Your task to perform on an android device: Go to network settings Image 0: 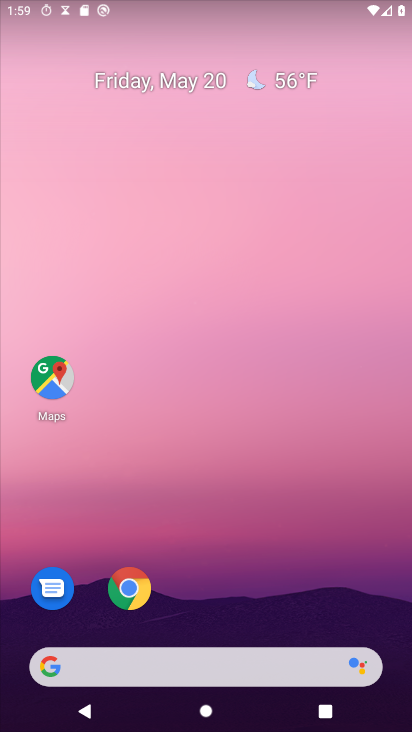
Step 0: drag from (13, 615) to (205, 175)
Your task to perform on an android device: Go to network settings Image 1: 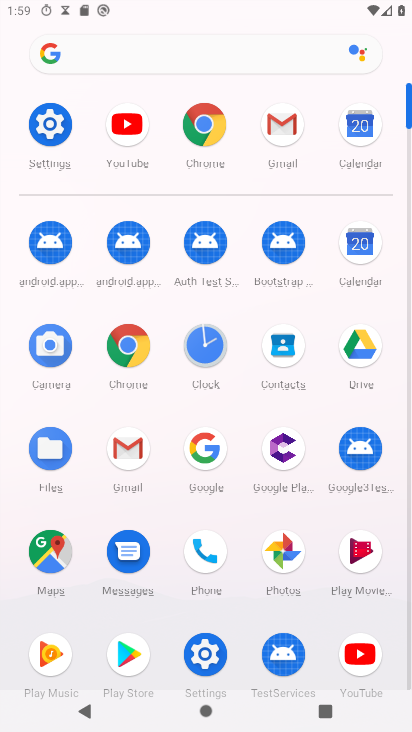
Step 1: click (59, 127)
Your task to perform on an android device: Go to network settings Image 2: 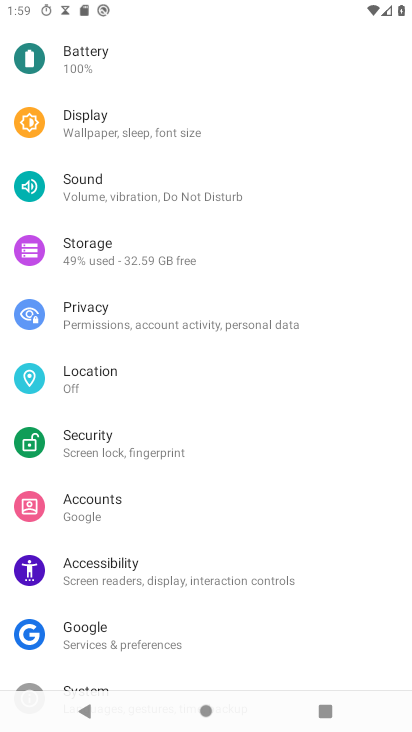
Step 2: drag from (164, 79) to (152, 402)
Your task to perform on an android device: Go to network settings Image 3: 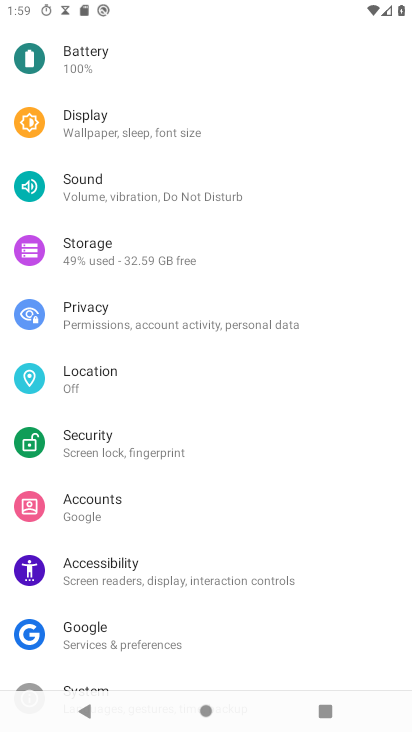
Step 3: drag from (147, 110) to (149, 577)
Your task to perform on an android device: Go to network settings Image 4: 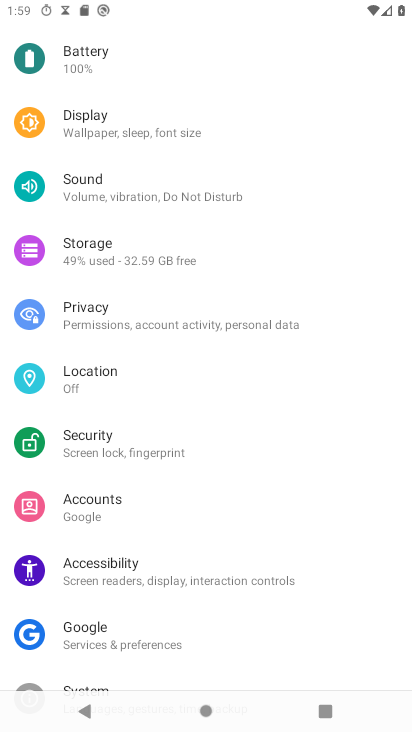
Step 4: drag from (101, 65) to (114, 547)
Your task to perform on an android device: Go to network settings Image 5: 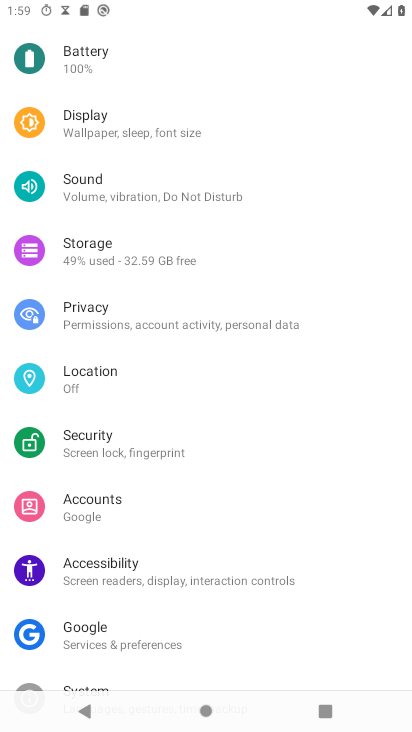
Step 5: drag from (316, 142) to (275, 540)
Your task to perform on an android device: Go to network settings Image 6: 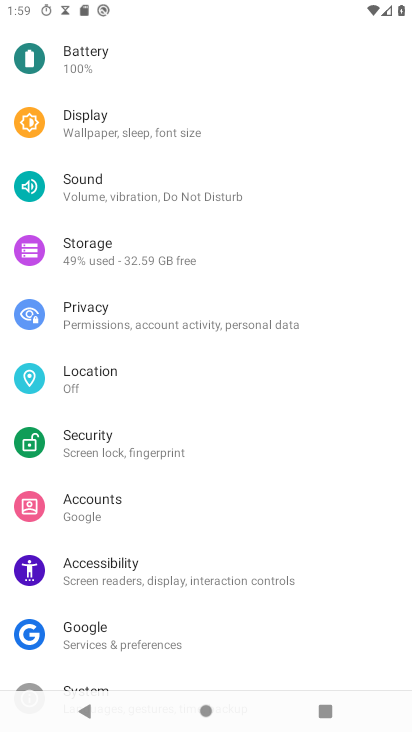
Step 6: drag from (48, 63) to (54, 547)
Your task to perform on an android device: Go to network settings Image 7: 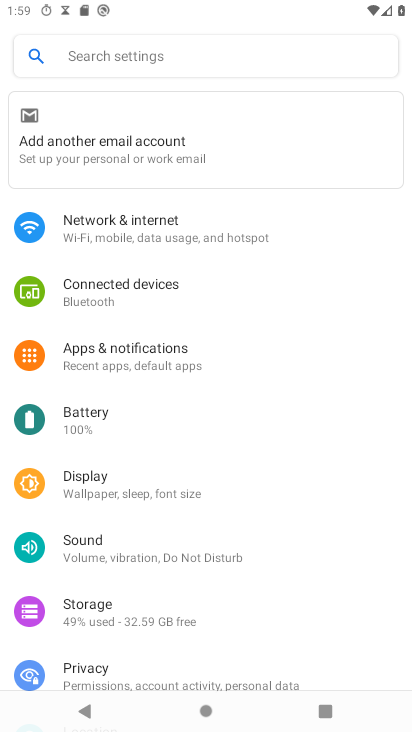
Step 7: click (148, 233)
Your task to perform on an android device: Go to network settings Image 8: 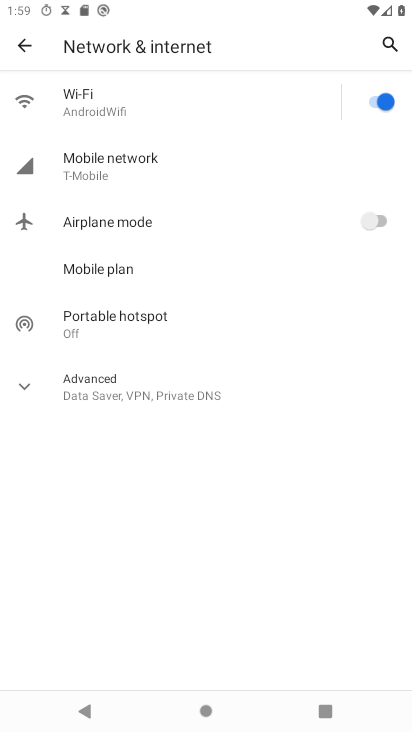
Step 8: task complete